Your task to perform on an android device: Open Google Chrome and open the bookmarks view Image 0: 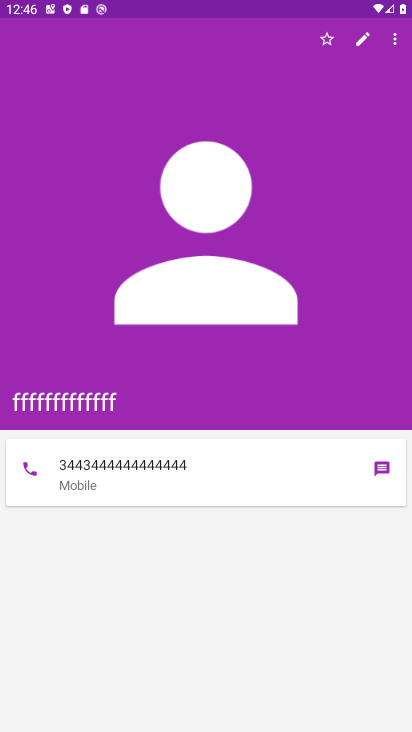
Step 0: press home button
Your task to perform on an android device: Open Google Chrome and open the bookmarks view Image 1: 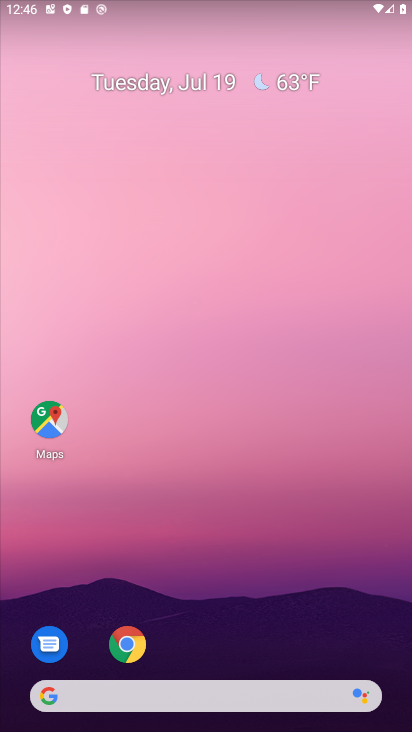
Step 1: click (123, 647)
Your task to perform on an android device: Open Google Chrome and open the bookmarks view Image 2: 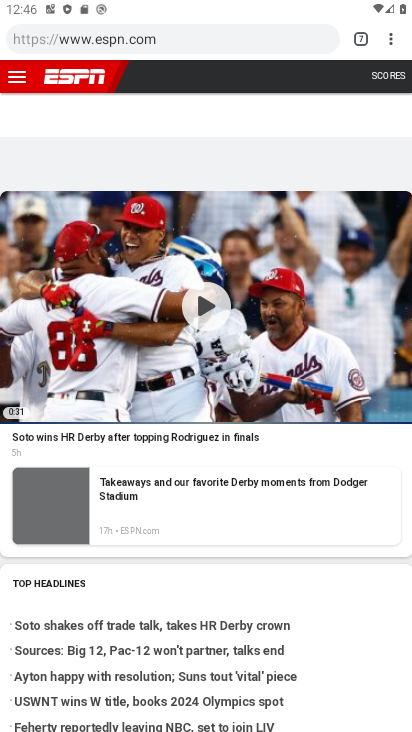
Step 2: click (393, 42)
Your task to perform on an android device: Open Google Chrome and open the bookmarks view Image 3: 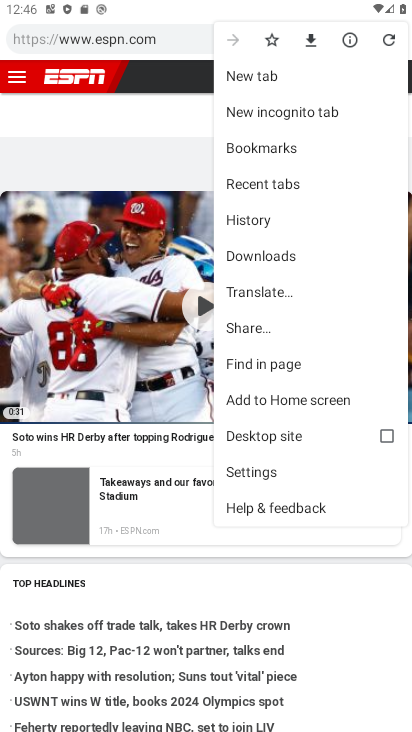
Step 3: click (260, 144)
Your task to perform on an android device: Open Google Chrome and open the bookmarks view Image 4: 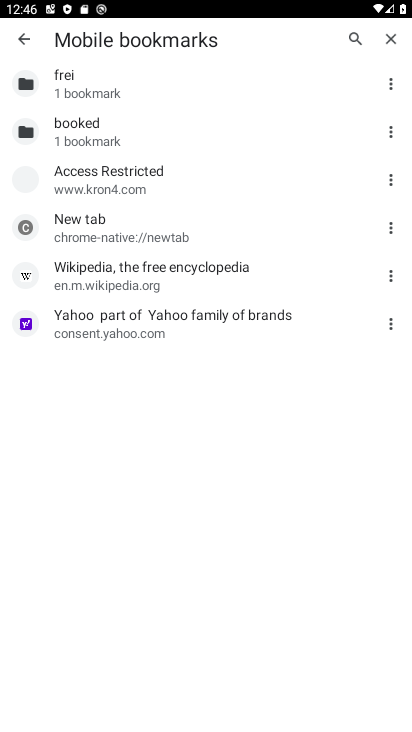
Step 4: task complete